Your task to perform on an android device: Search for a new skincare product Image 0: 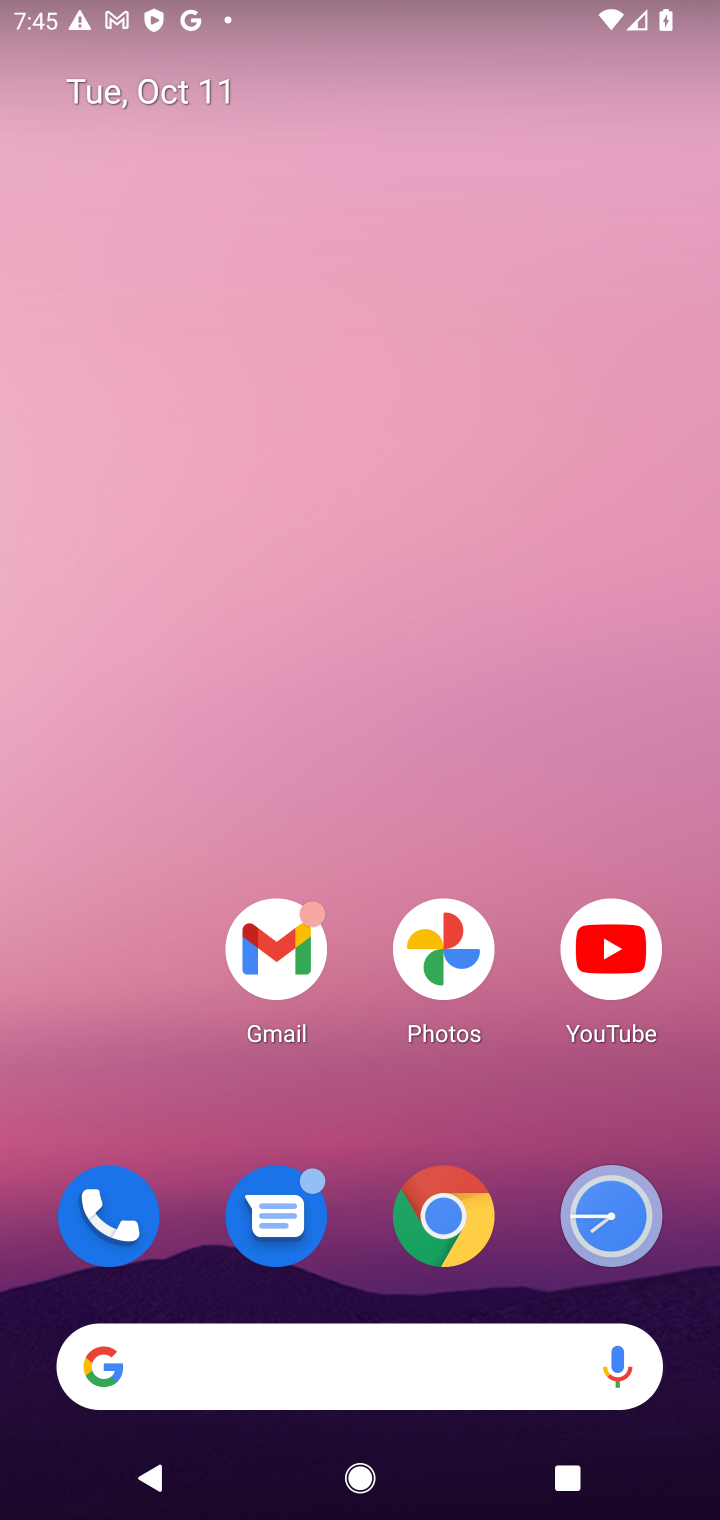
Step 0: drag from (419, 1301) to (395, 398)
Your task to perform on an android device: Search for a new skincare product Image 1: 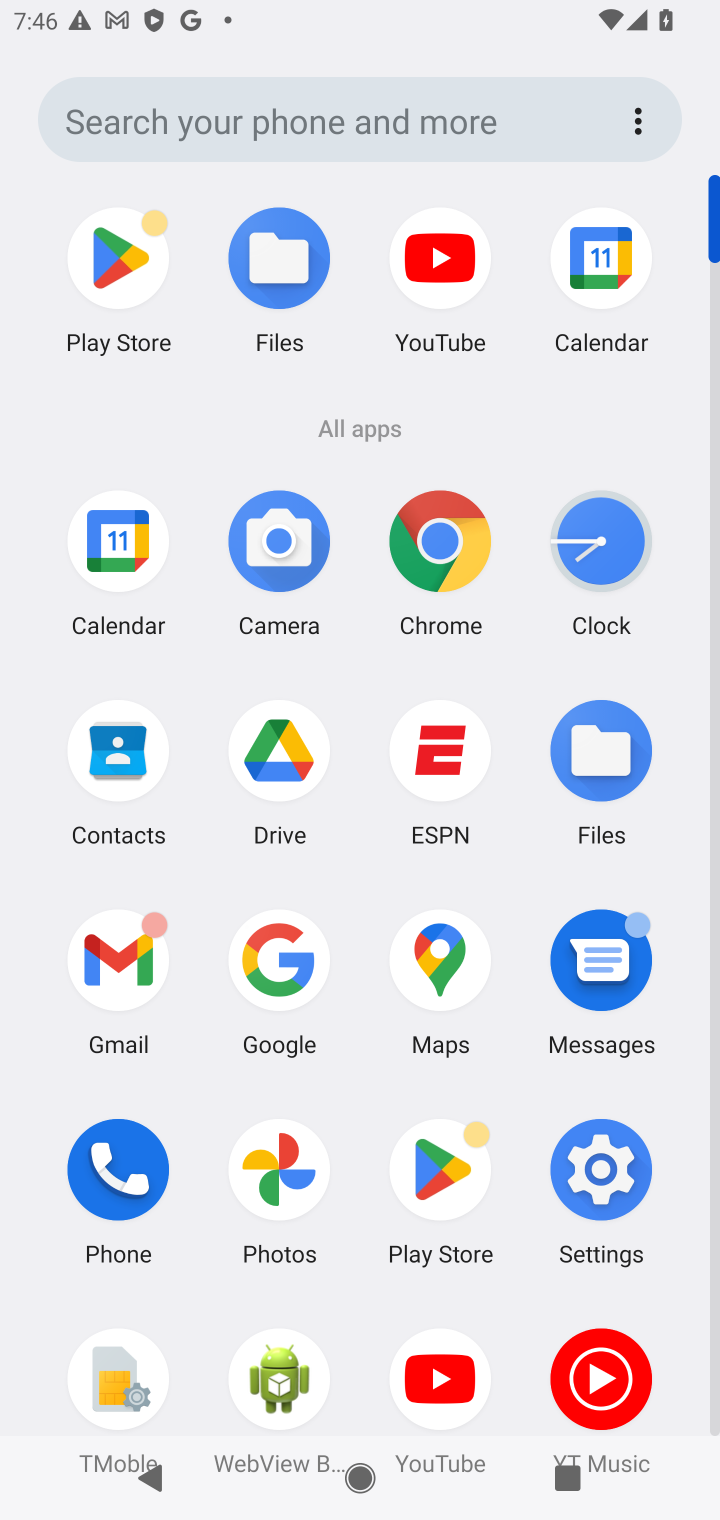
Step 1: click (418, 608)
Your task to perform on an android device: Search for a new skincare product Image 2: 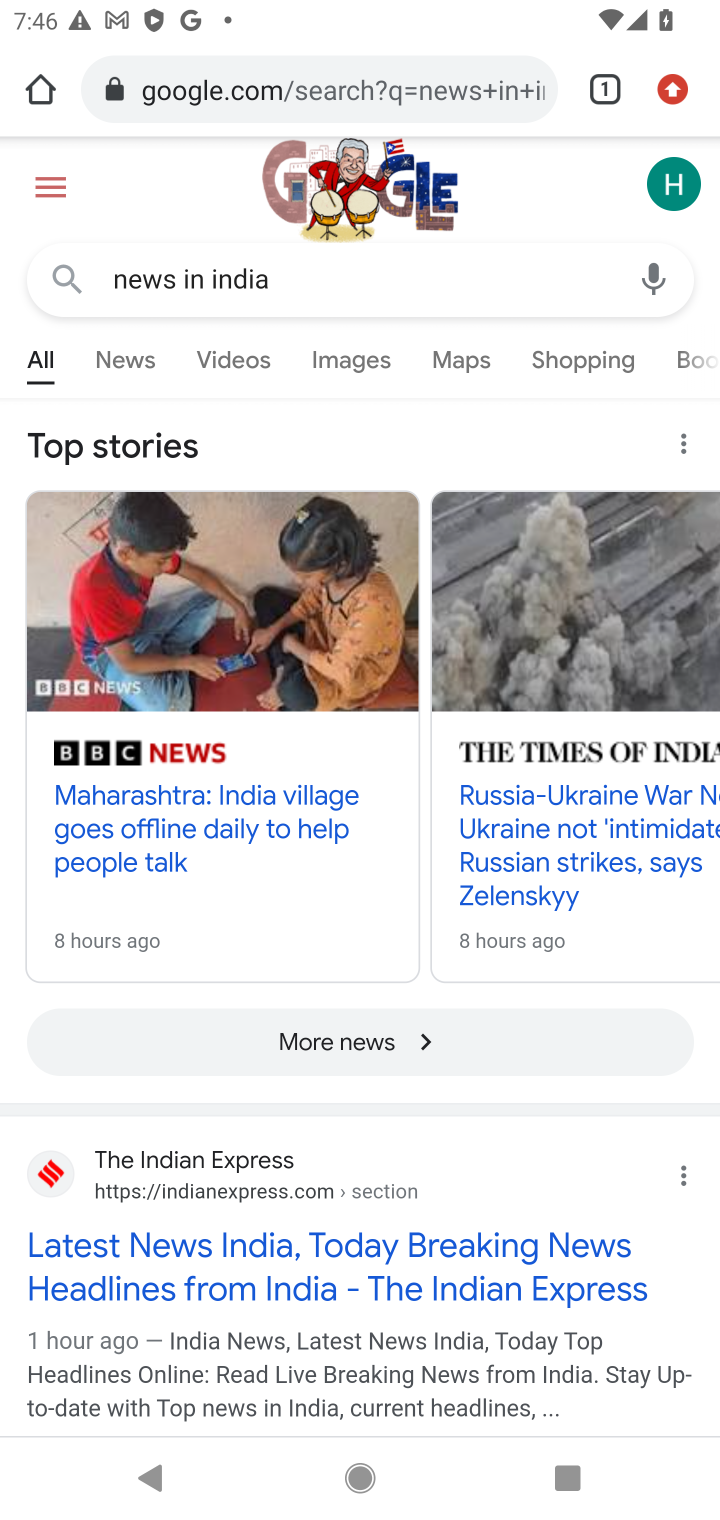
Step 2: click (387, 288)
Your task to perform on an android device: Search for a new skincare product Image 3: 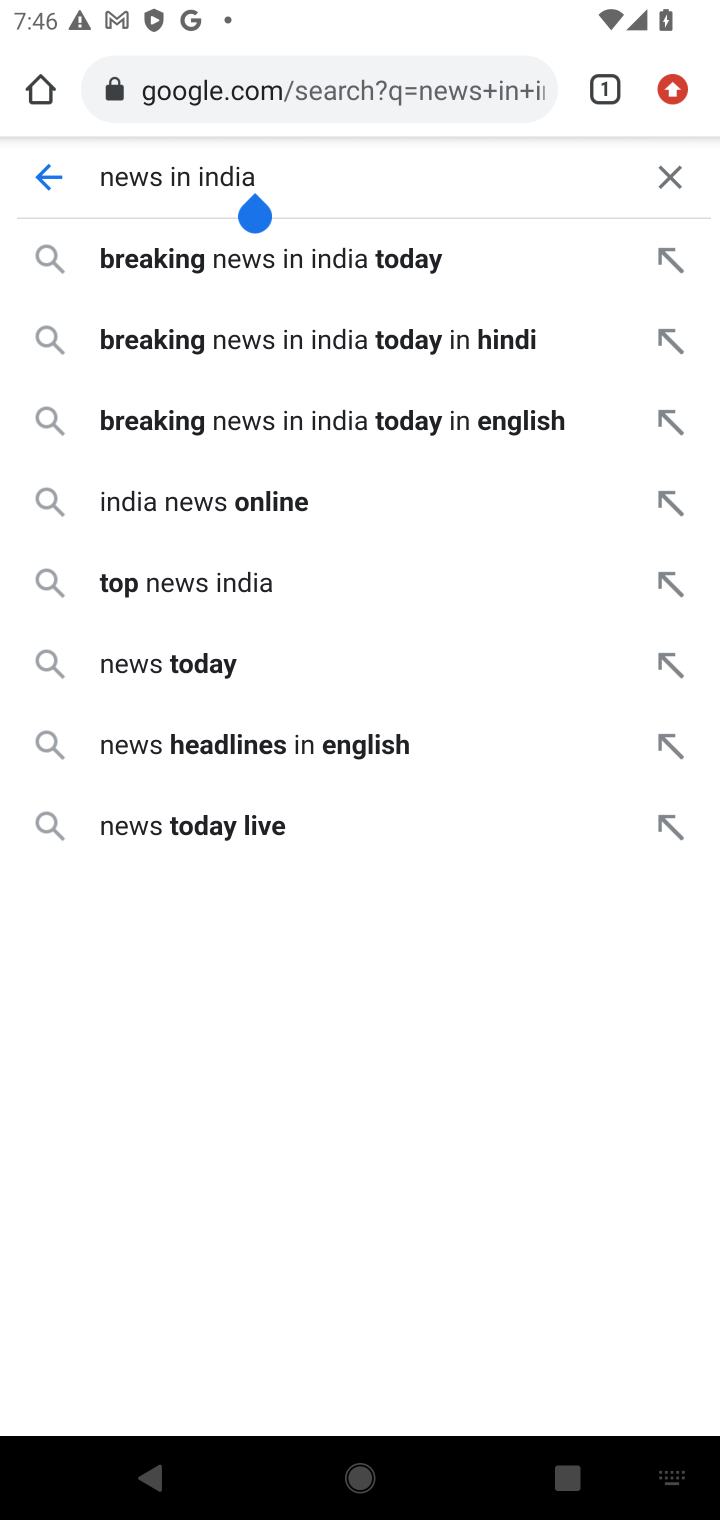
Step 3: click (663, 164)
Your task to perform on an android device: Search for a new skincare product Image 4: 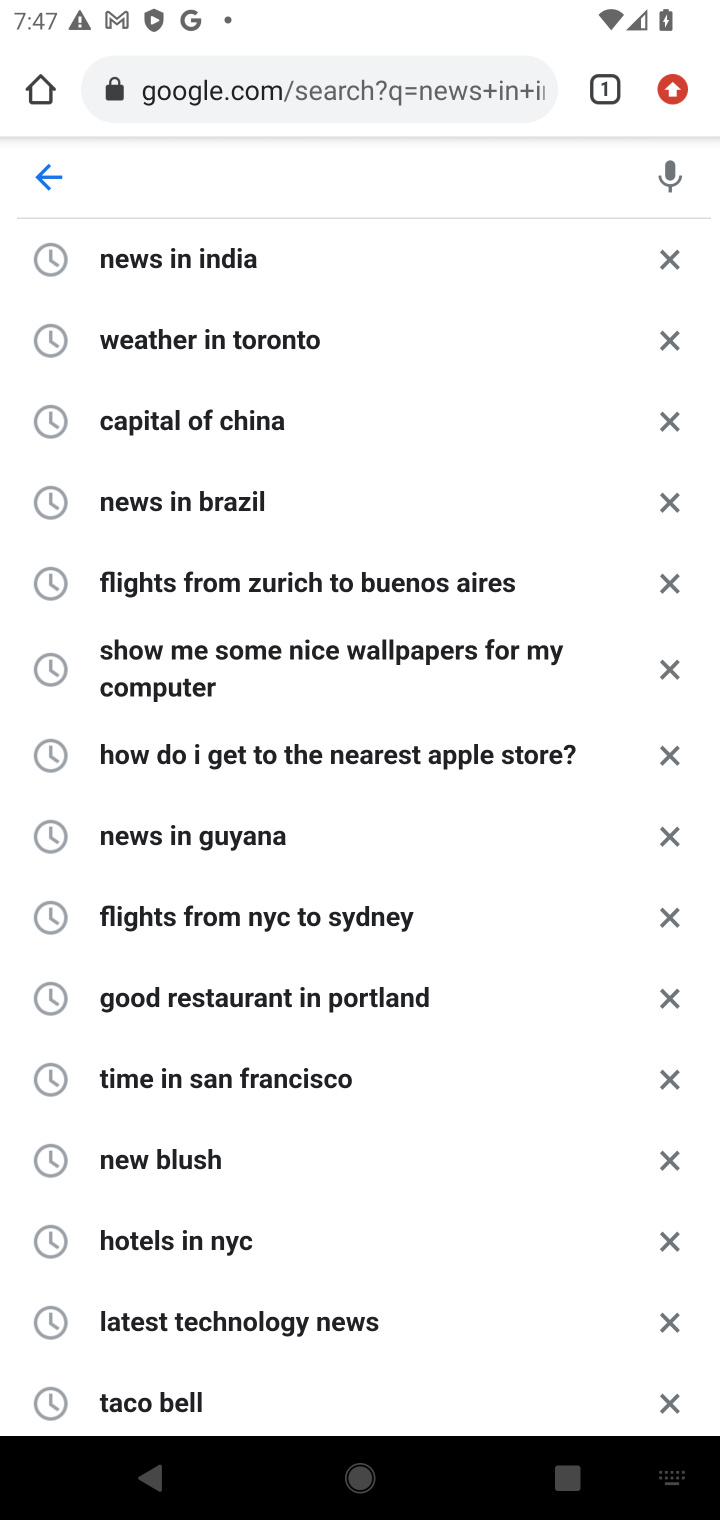
Step 4: type "new skincare product"
Your task to perform on an android device: Search for a new skincare product Image 5: 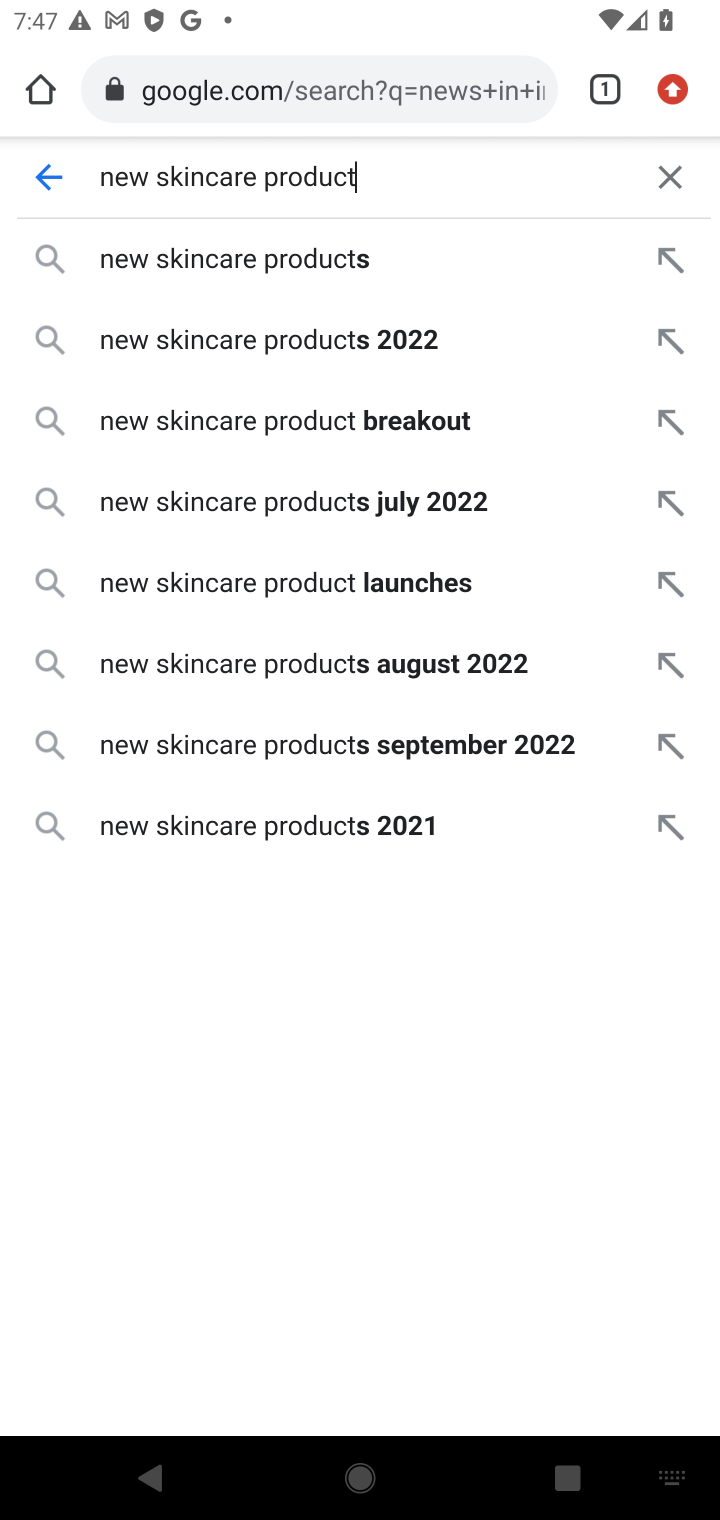
Step 5: click (209, 259)
Your task to perform on an android device: Search for a new skincare product Image 6: 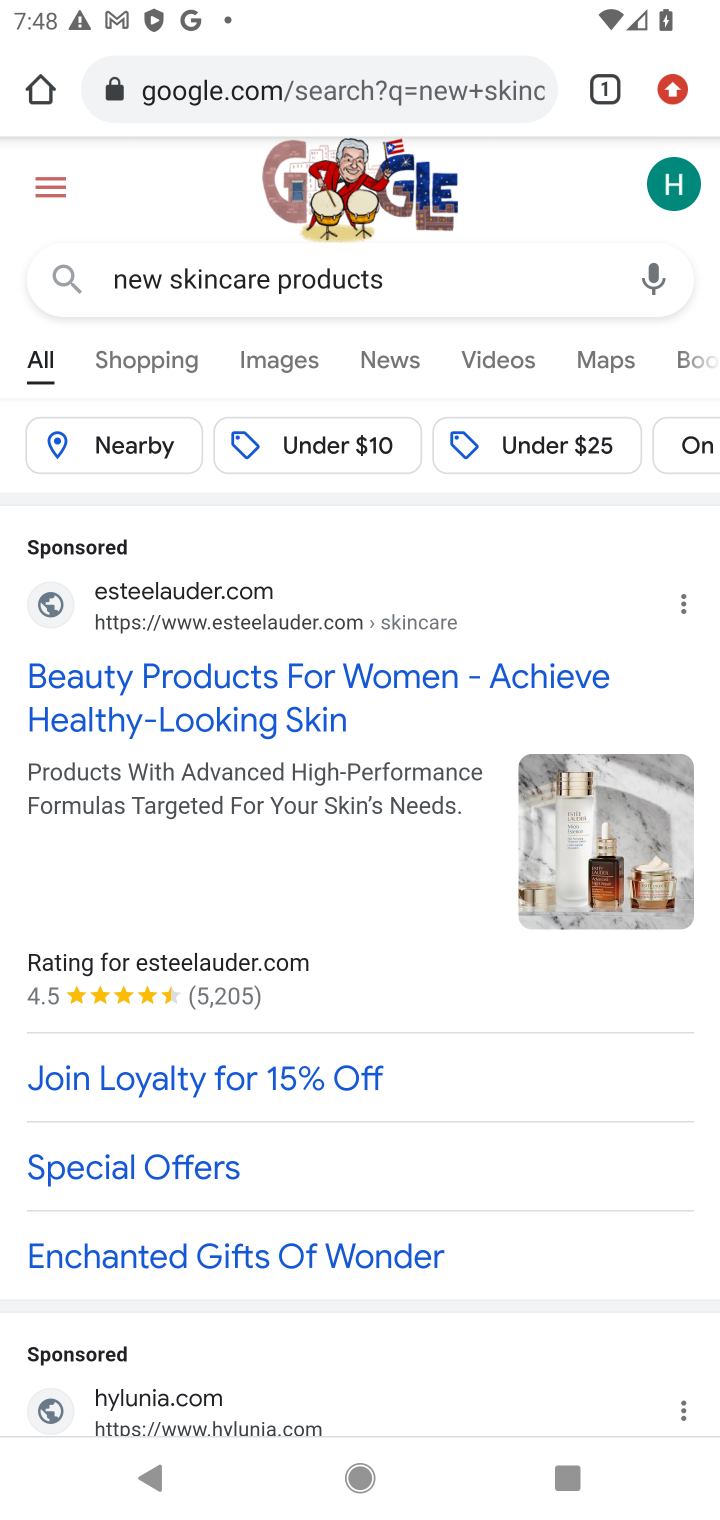
Step 6: task complete